Your task to perform on an android device: What's the weather going to be tomorrow? Image 0: 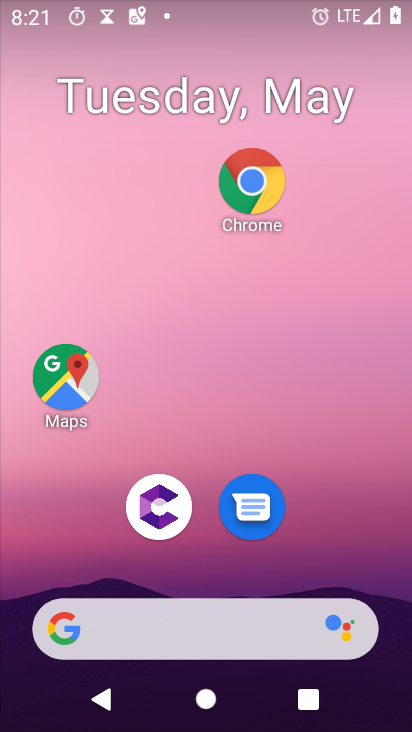
Step 0: click (194, 614)
Your task to perform on an android device: What's the weather going to be tomorrow? Image 1: 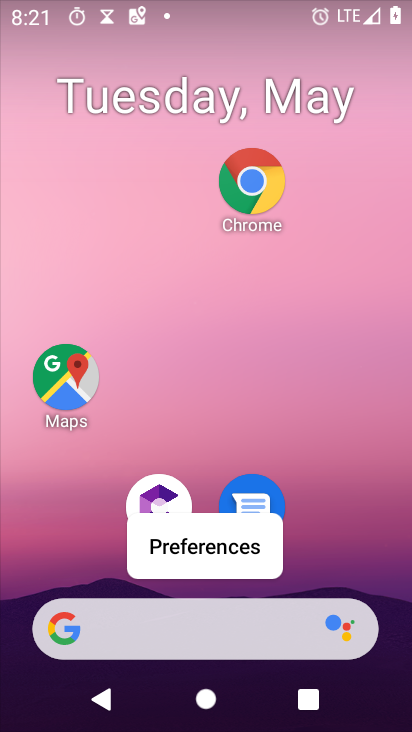
Step 1: click (253, 633)
Your task to perform on an android device: What's the weather going to be tomorrow? Image 2: 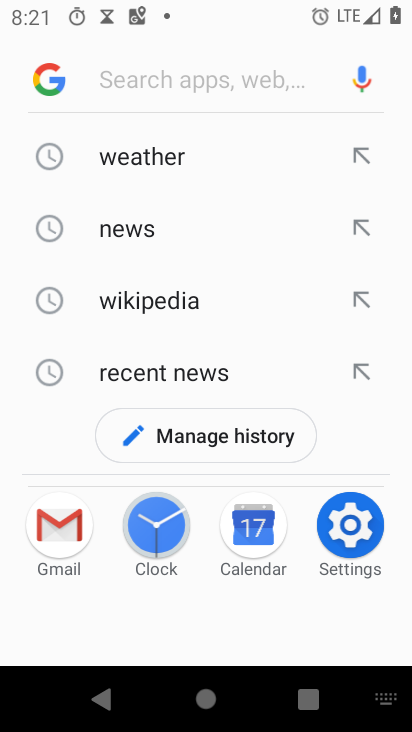
Step 2: type "what's the weather going to be tomorrow"
Your task to perform on an android device: What's the weather going to be tomorrow? Image 3: 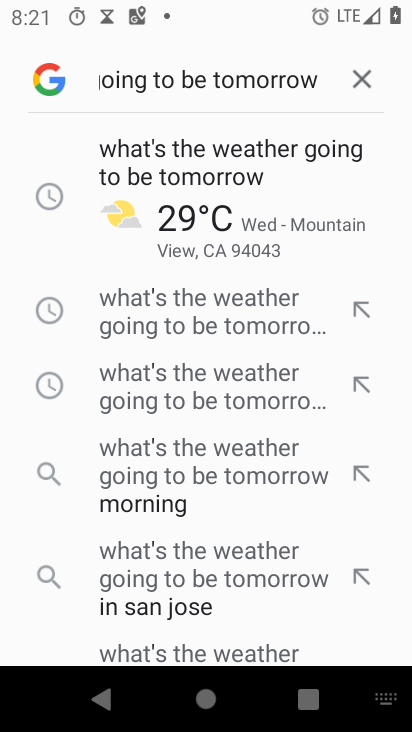
Step 3: click (172, 199)
Your task to perform on an android device: What's the weather going to be tomorrow? Image 4: 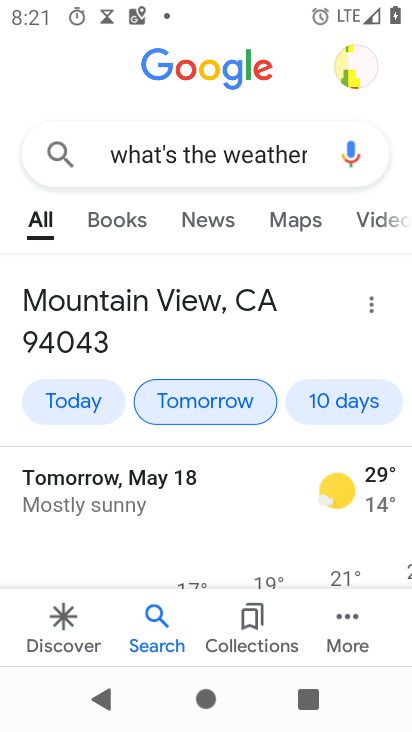
Step 4: task complete